Your task to perform on an android device: Open Amazon Image 0: 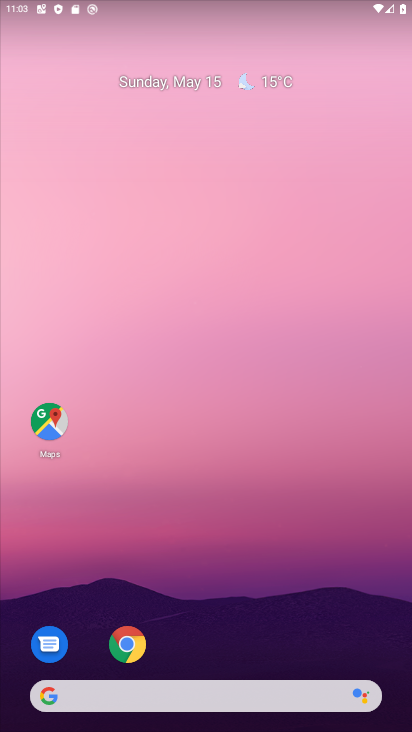
Step 0: click (120, 621)
Your task to perform on an android device: Open Amazon Image 1: 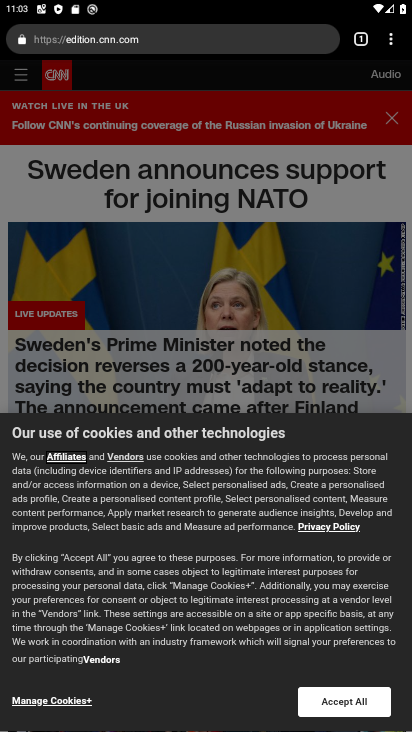
Step 1: click (332, 168)
Your task to perform on an android device: Open Amazon Image 2: 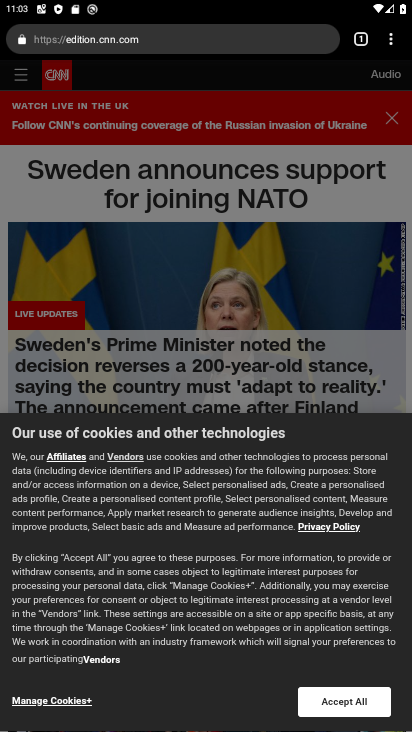
Step 2: click (368, 38)
Your task to perform on an android device: Open Amazon Image 3: 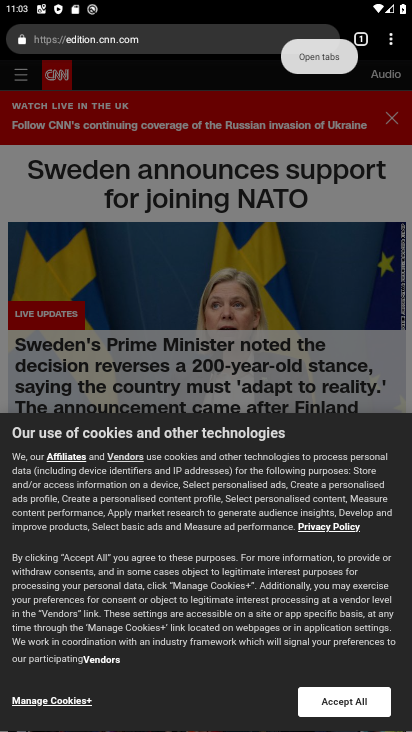
Step 3: click (363, 44)
Your task to perform on an android device: Open Amazon Image 4: 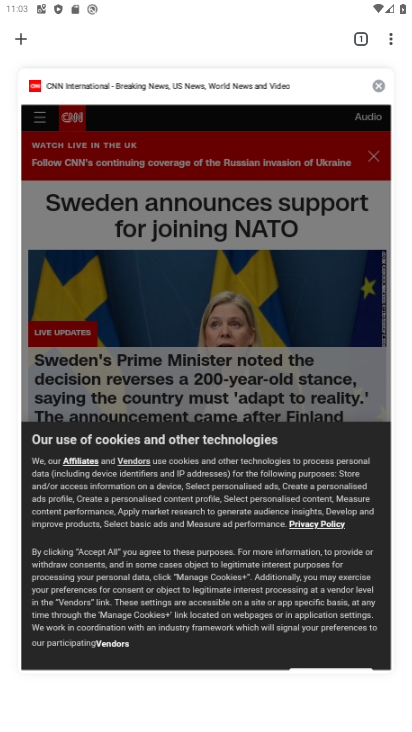
Step 4: click (379, 86)
Your task to perform on an android device: Open Amazon Image 5: 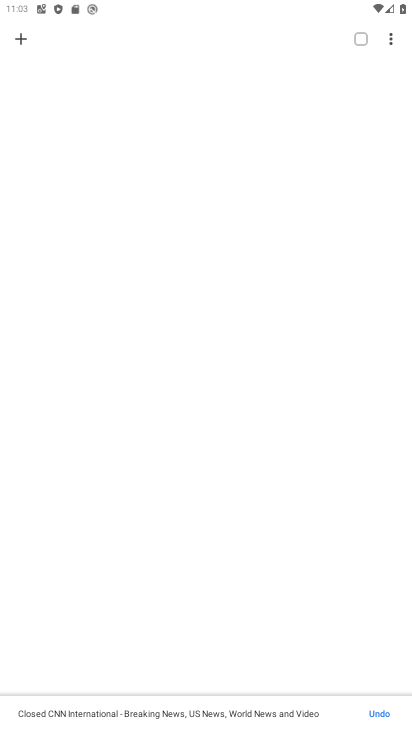
Step 5: click (19, 32)
Your task to perform on an android device: Open Amazon Image 6: 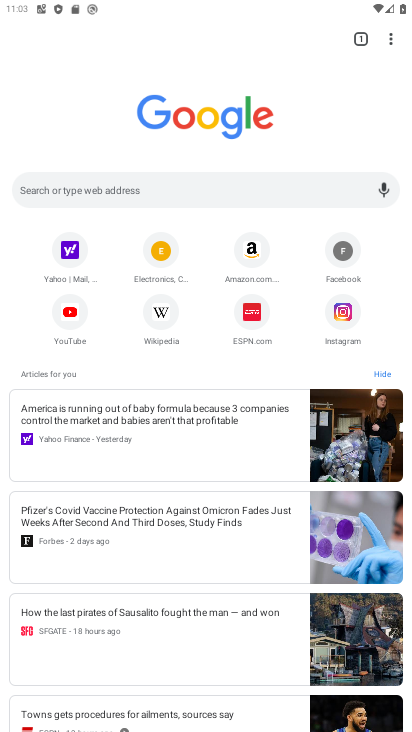
Step 6: click (244, 249)
Your task to perform on an android device: Open Amazon Image 7: 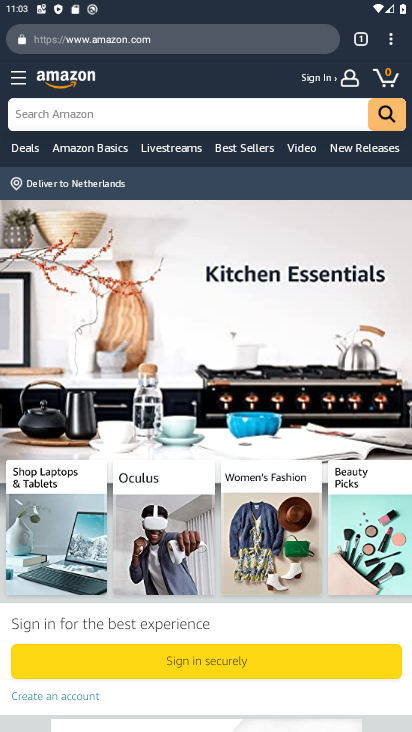
Step 7: task complete